Your task to perform on an android device: open device folders in google photos Image 0: 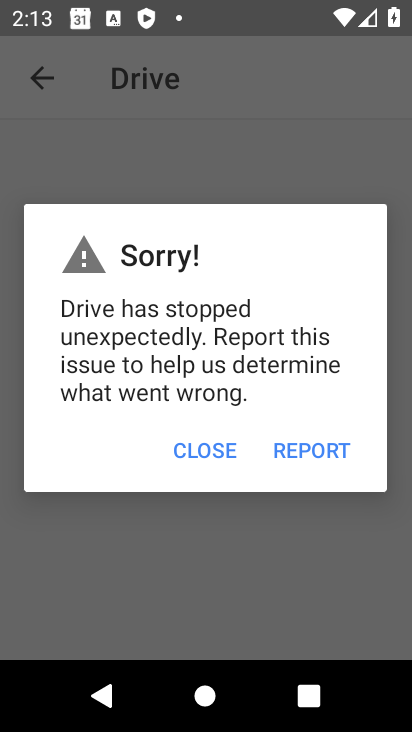
Step 0: press home button
Your task to perform on an android device: open device folders in google photos Image 1: 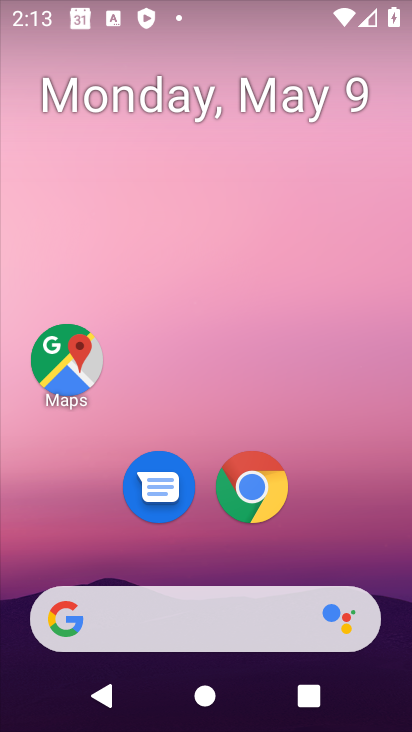
Step 1: drag from (203, 534) to (247, 42)
Your task to perform on an android device: open device folders in google photos Image 2: 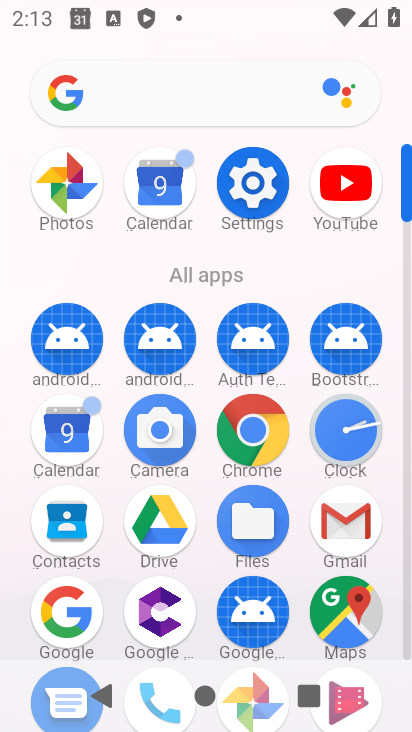
Step 2: drag from (207, 603) to (217, 470)
Your task to perform on an android device: open device folders in google photos Image 3: 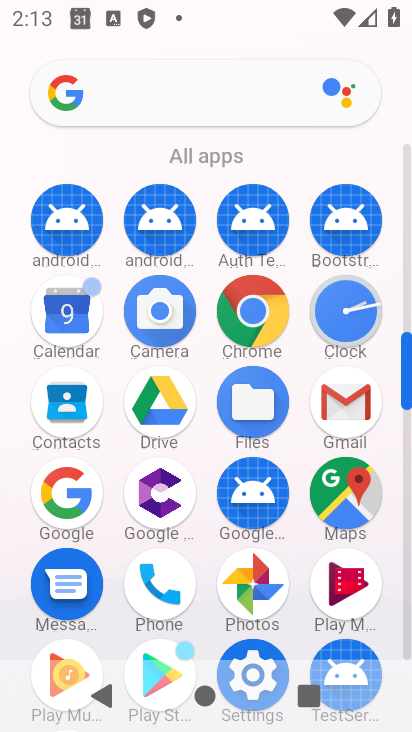
Step 3: click (256, 578)
Your task to perform on an android device: open device folders in google photos Image 4: 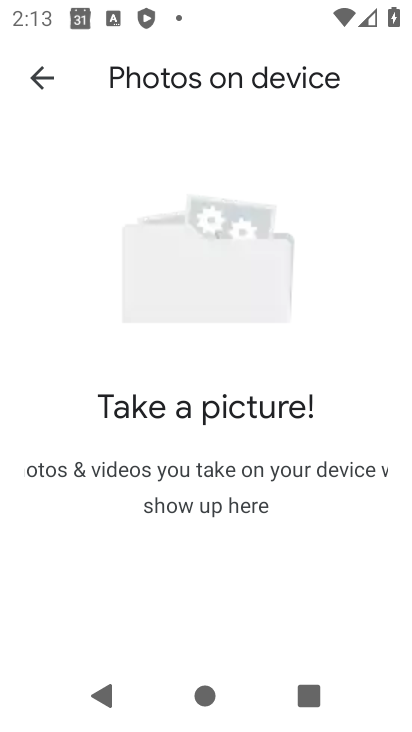
Step 4: task complete